Your task to perform on an android device: Show the shopping cart on target.com. Search for "bose soundlink mini" on target.com, select the first entry, and add it to the cart. Image 0: 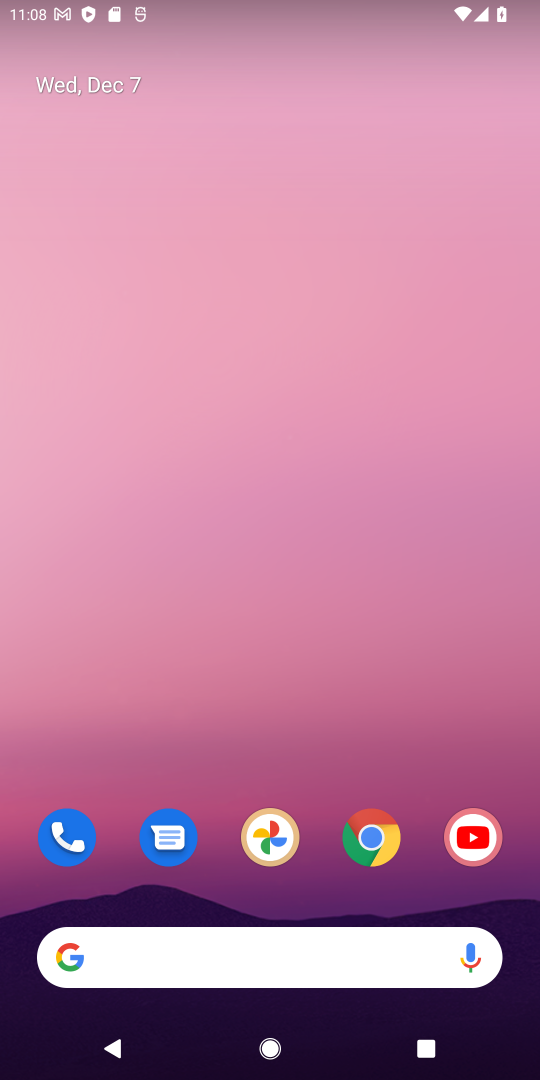
Step 0: click (387, 835)
Your task to perform on an android device: Show the shopping cart on target.com. Search for "bose soundlink mini" on target.com, select the first entry, and add it to the cart. Image 1: 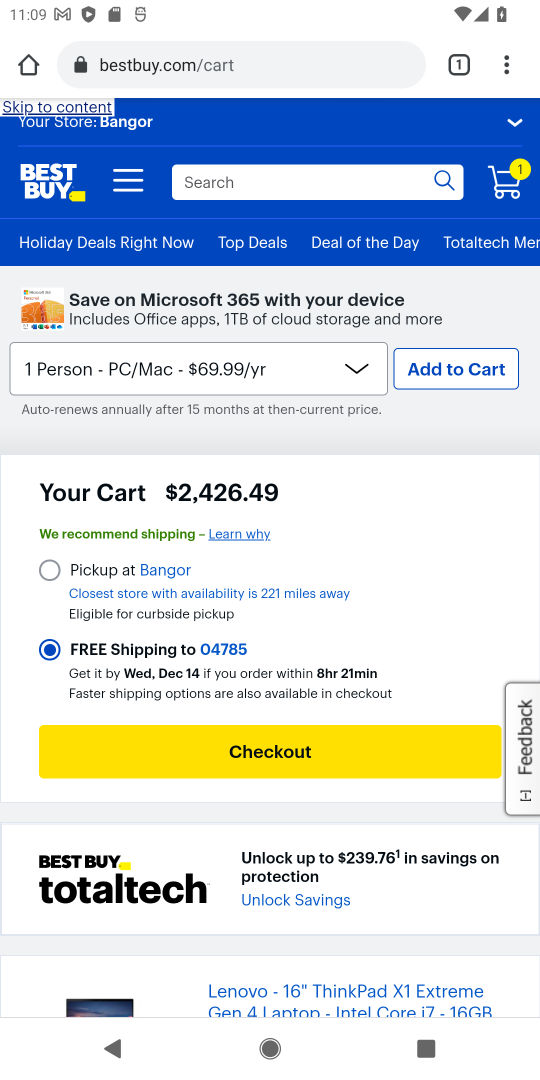
Step 1: click (303, 52)
Your task to perform on an android device: Show the shopping cart on target.com. Search for "bose soundlink mini" on target.com, select the first entry, and add it to the cart. Image 2: 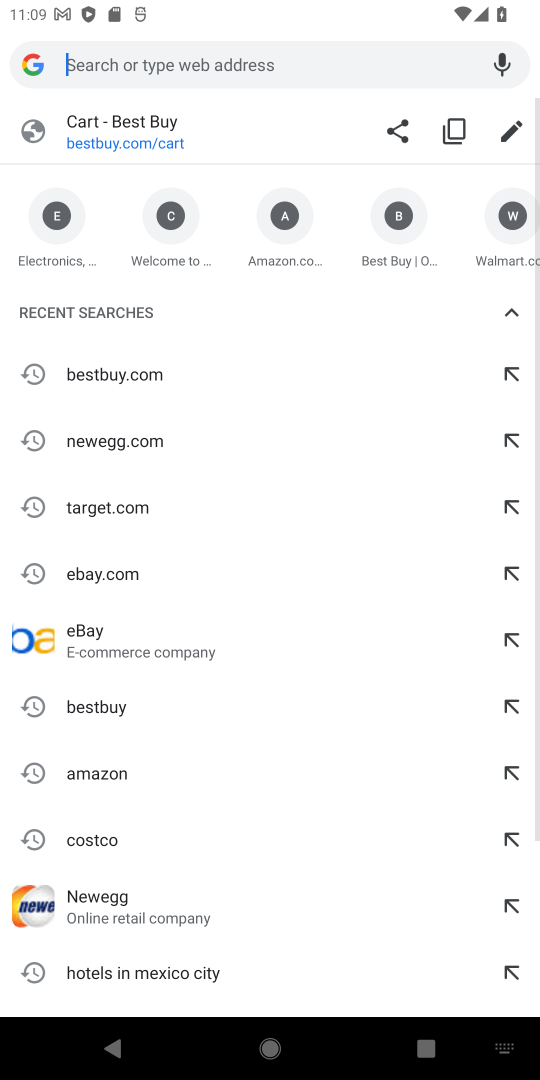
Step 2: click (127, 505)
Your task to perform on an android device: Show the shopping cart on target.com. Search for "bose soundlink mini" on target.com, select the first entry, and add it to the cart. Image 3: 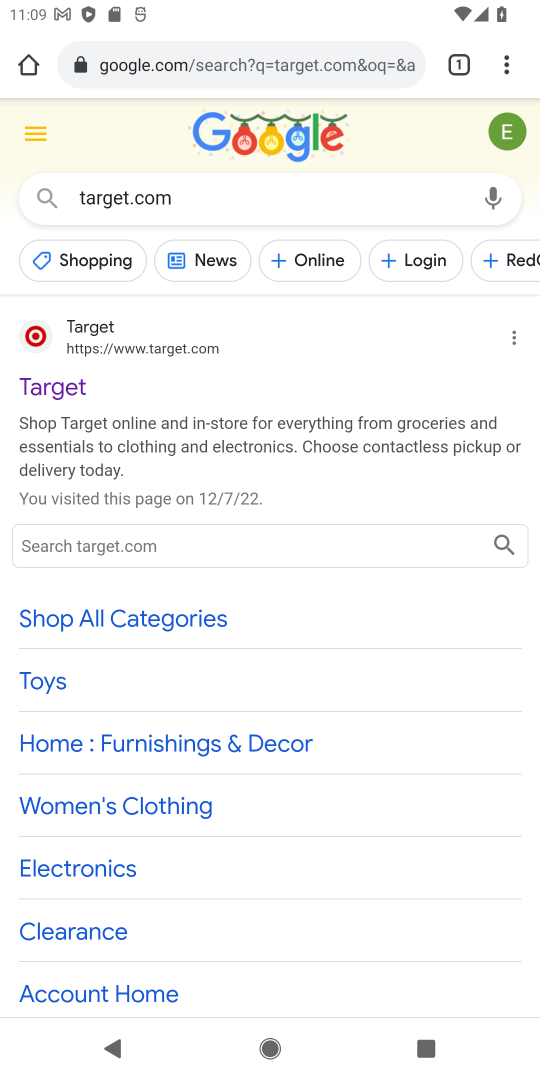
Step 3: click (162, 355)
Your task to perform on an android device: Show the shopping cart on target.com. Search for "bose soundlink mini" on target.com, select the first entry, and add it to the cart. Image 4: 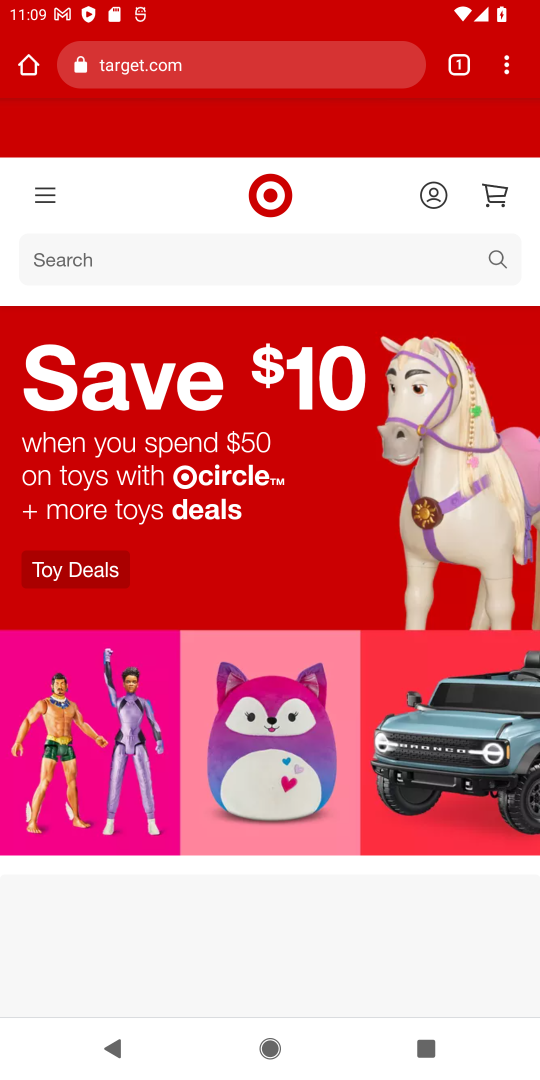
Step 4: click (490, 194)
Your task to perform on an android device: Show the shopping cart on target.com. Search for "bose soundlink mini" on target.com, select the first entry, and add it to the cart. Image 5: 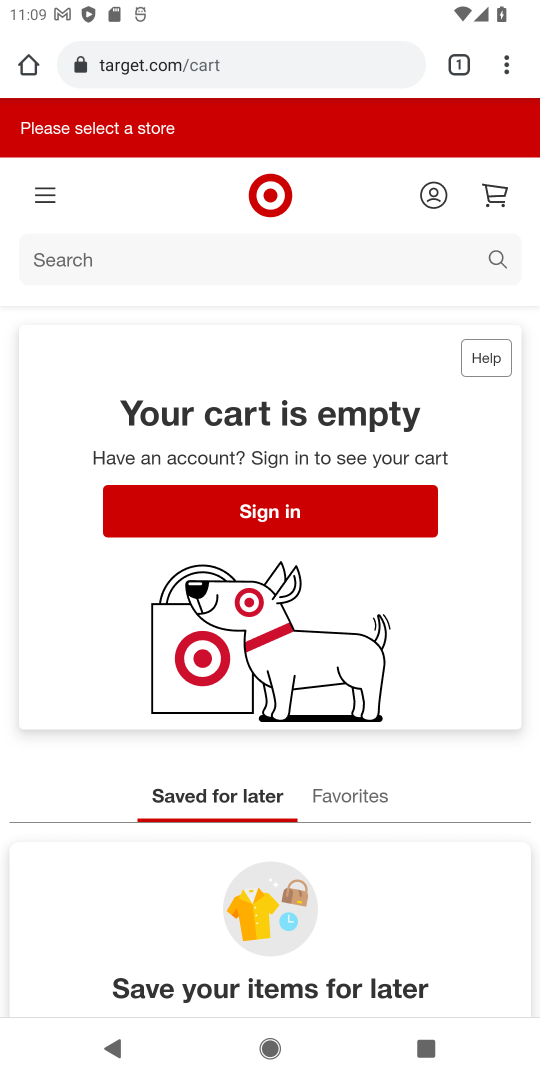
Step 5: click (500, 251)
Your task to perform on an android device: Show the shopping cart on target.com. Search for "bose soundlink mini" on target.com, select the first entry, and add it to the cart. Image 6: 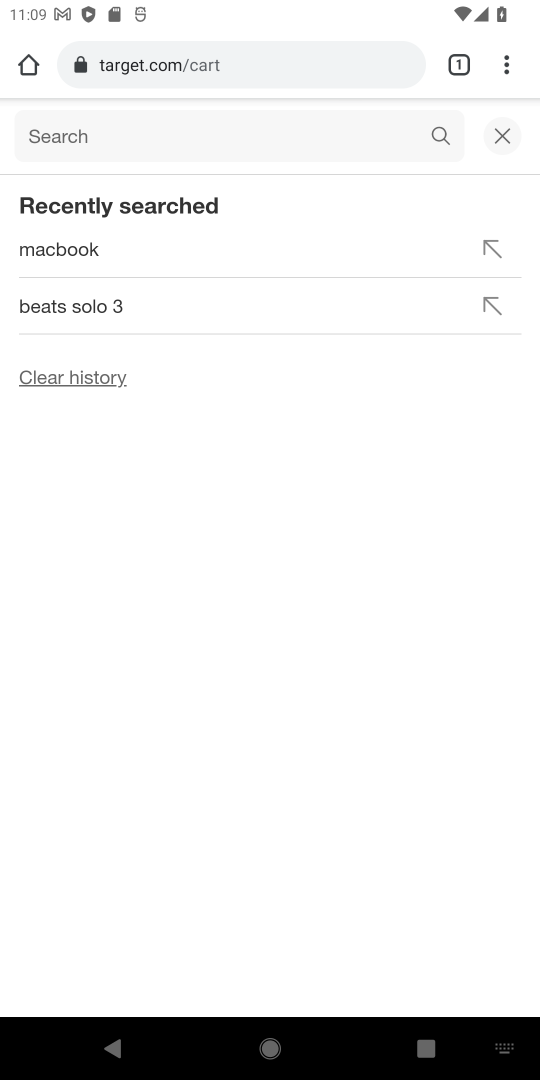
Step 6: type "bose soundlink mini"
Your task to perform on an android device: Show the shopping cart on target.com. Search for "bose soundlink mini" on target.com, select the first entry, and add it to the cart. Image 7: 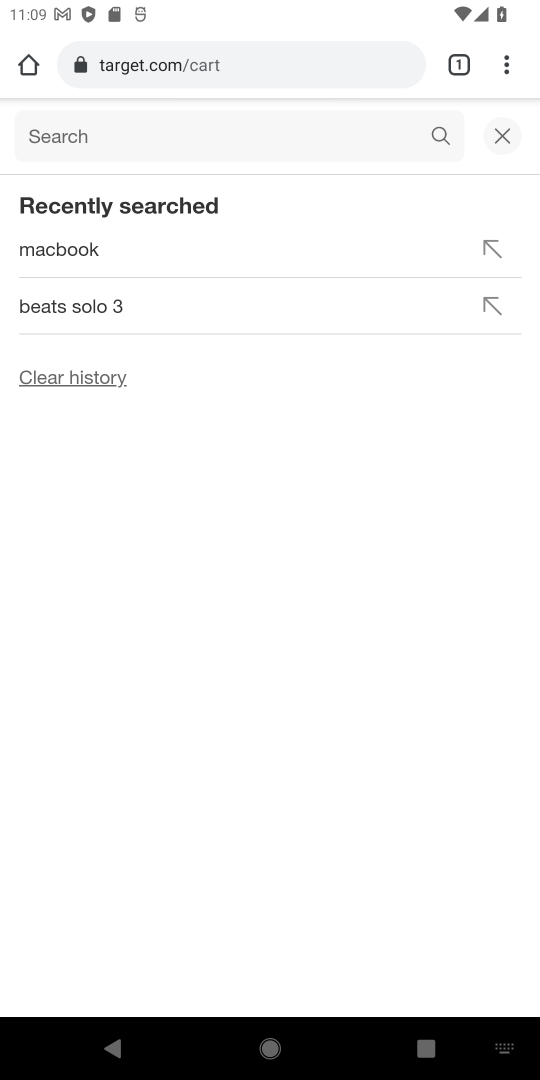
Step 7: press enter
Your task to perform on an android device: Show the shopping cart on target.com. Search for "bose soundlink mini" on target.com, select the first entry, and add it to the cart. Image 8: 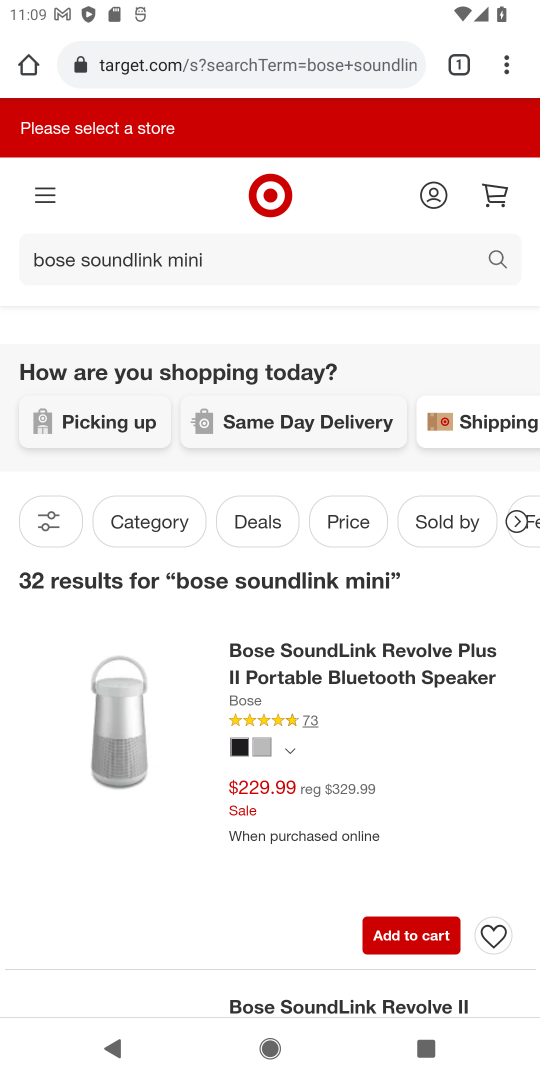
Step 8: task complete